Your task to perform on an android device: toggle notification dots Image 0: 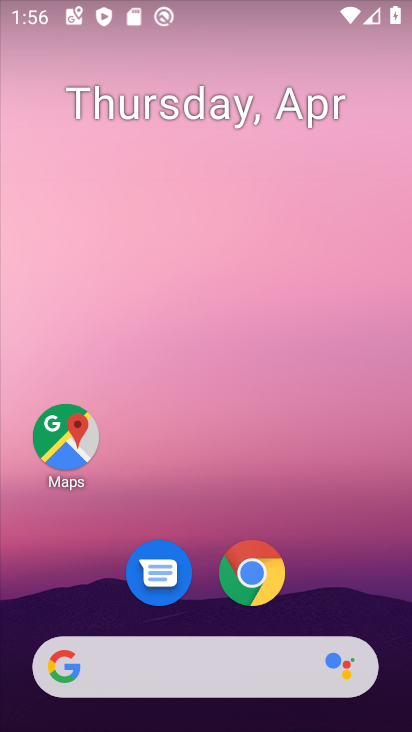
Step 0: drag from (350, 609) to (296, 47)
Your task to perform on an android device: toggle notification dots Image 1: 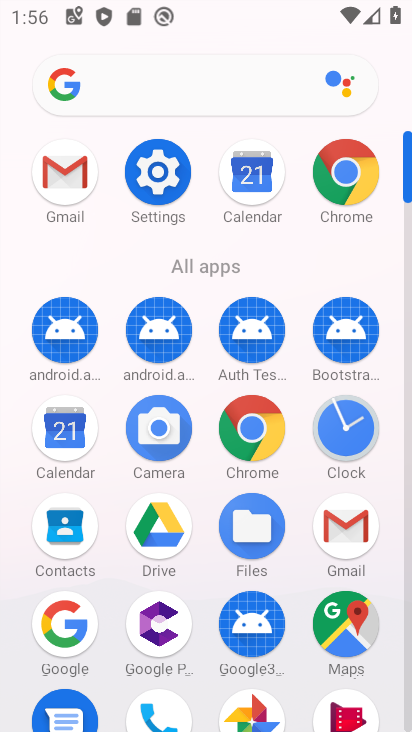
Step 1: click (155, 179)
Your task to perform on an android device: toggle notification dots Image 2: 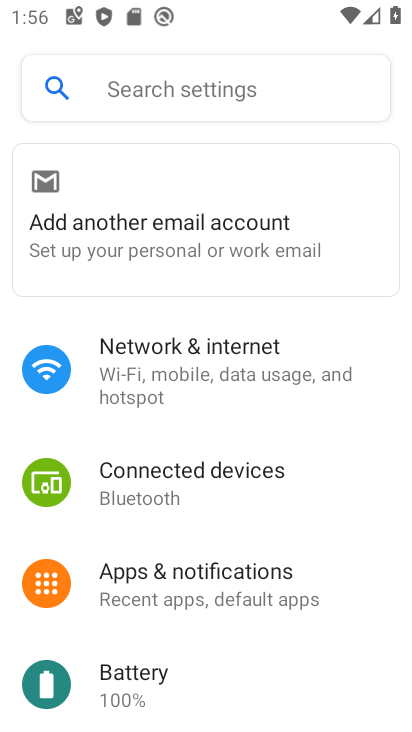
Step 2: click (260, 572)
Your task to perform on an android device: toggle notification dots Image 3: 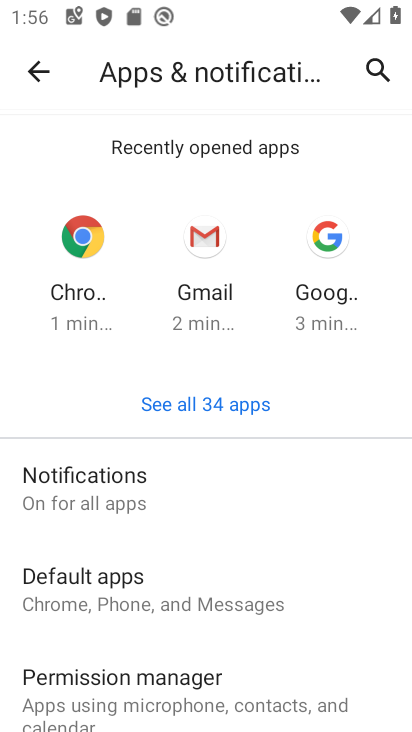
Step 3: click (163, 467)
Your task to perform on an android device: toggle notification dots Image 4: 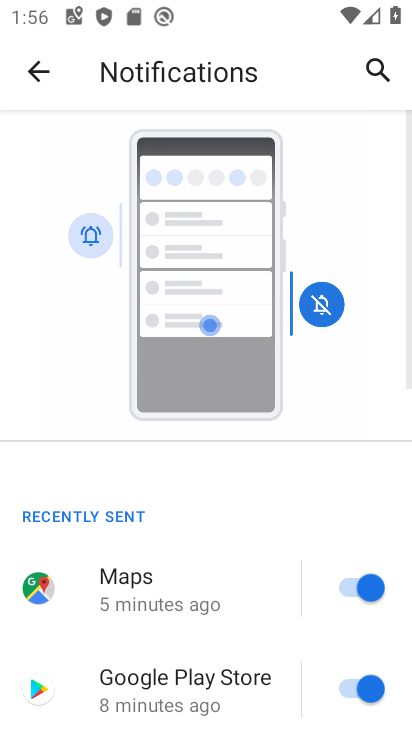
Step 4: drag from (160, 644) to (245, 57)
Your task to perform on an android device: toggle notification dots Image 5: 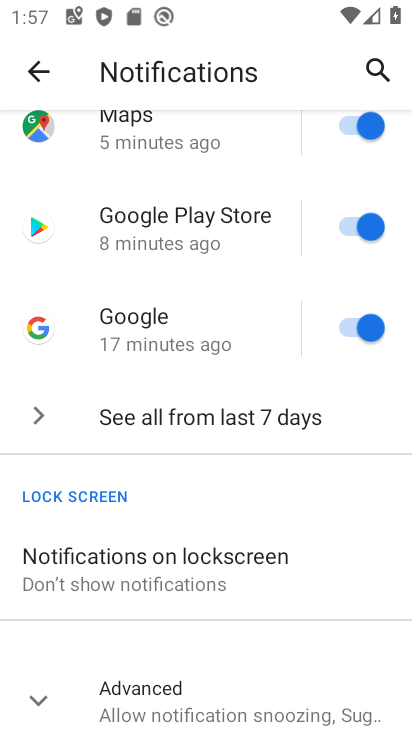
Step 5: drag from (178, 595) to (206, 155)
Your task to perform on an android device: toggle notification dots Image 6: 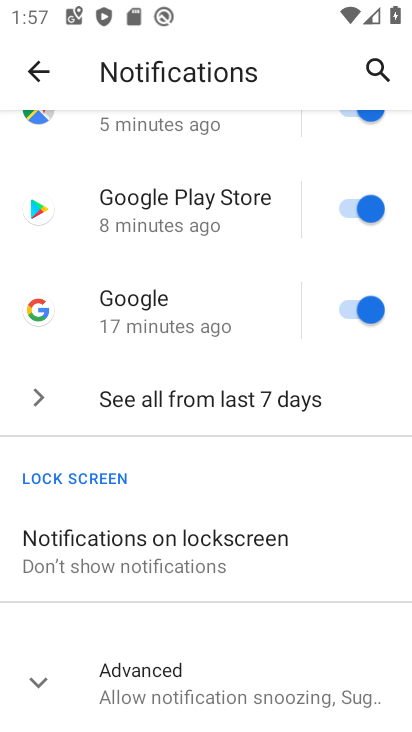
Step 6: click (43, 684)
Your task to perform on an android device: toggle notification dots Image 7: 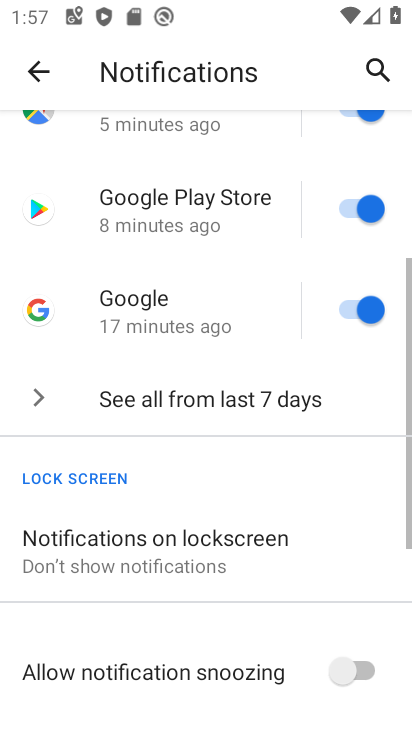
Step 7: drag from (75, 658) to (155, 211)
Your task to perform on an android device: toggle notification dots Image 8: 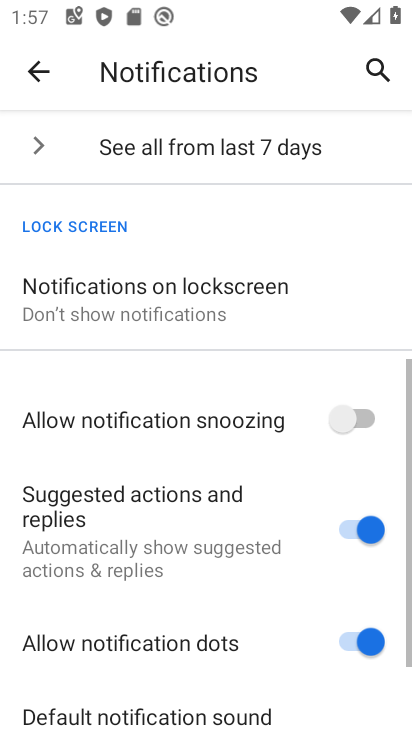
Step 8: click (128, 148)
Your task to perform on an android device: toggle notification dots Image 9: 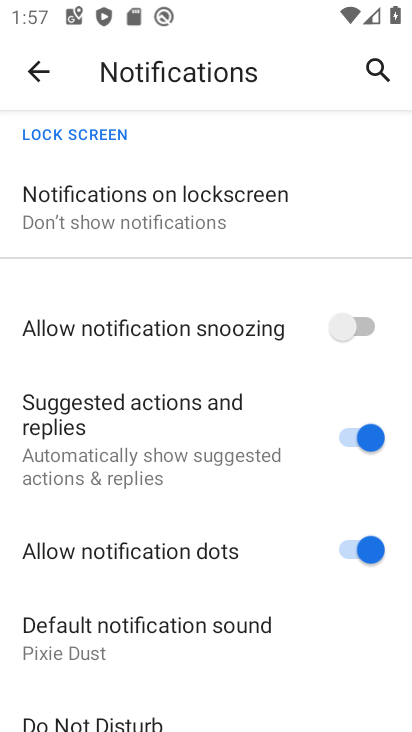
Step 9: click (297, 548)
Your task to perform on an android device: toggle notification dots Image 10: 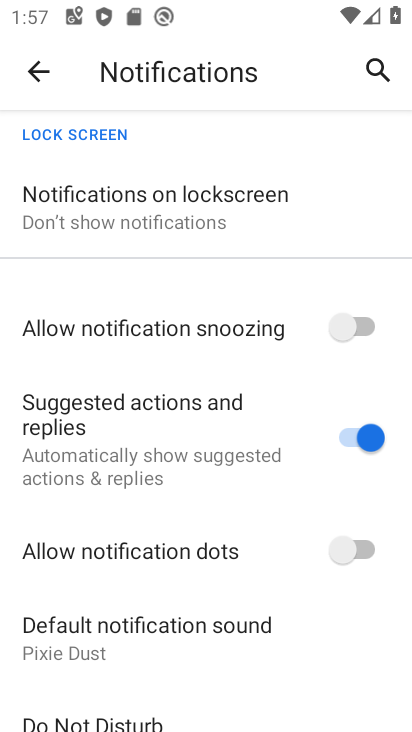
Step 10: task complete